Your task to perform on an android device: Open Yahoo.com Image 0: 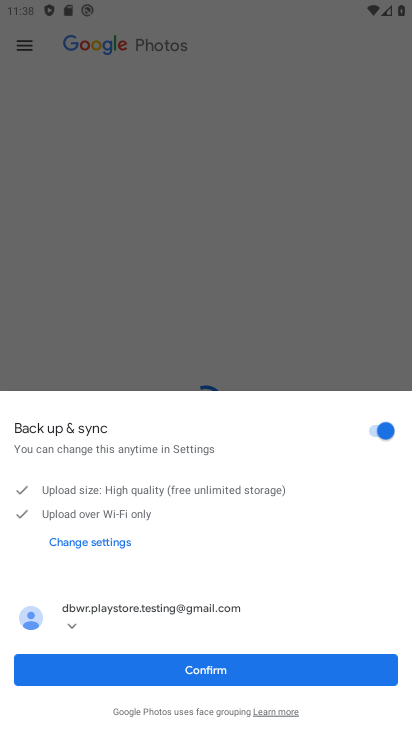
Step 0: press home button
Your task to perform on an android device: Open Yahoo.com Image 1: 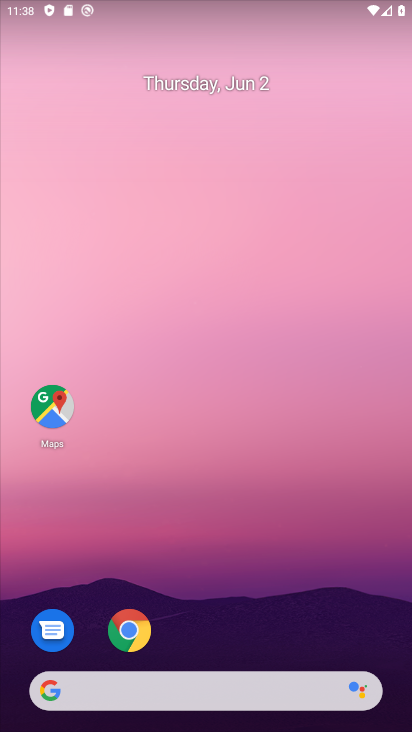
Step 1: click (121, 645)
Your task to perform on an android device: Open Yahoo.com Image 2: 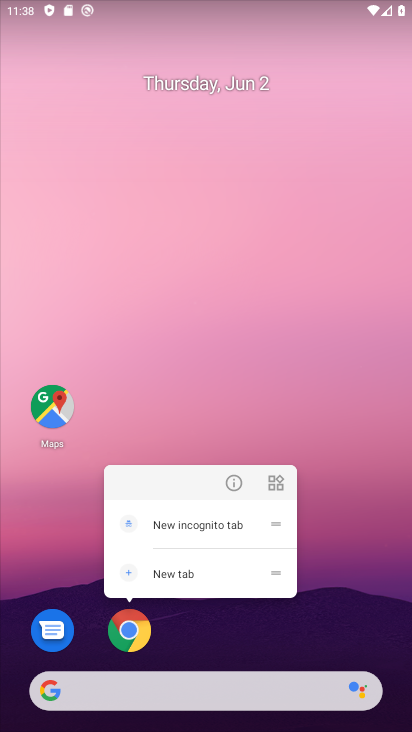
Step 2: click (134, 632)
Your task to perform on an android device: Open Yahoo.com Image 3: 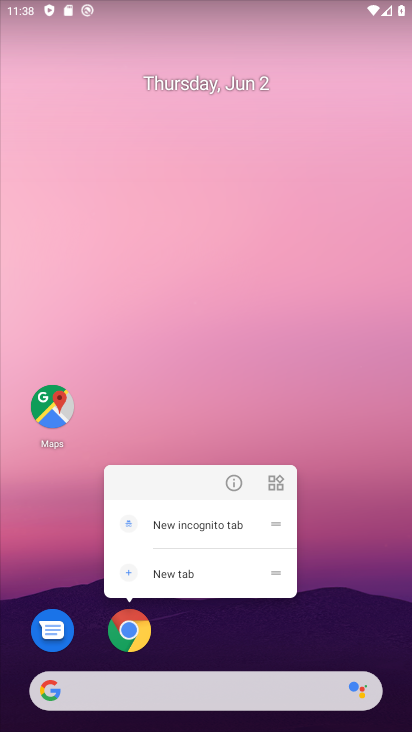
Step 3: click (134, 632)
Your task to perform on an android device: Open Yahoo.com Image 4: 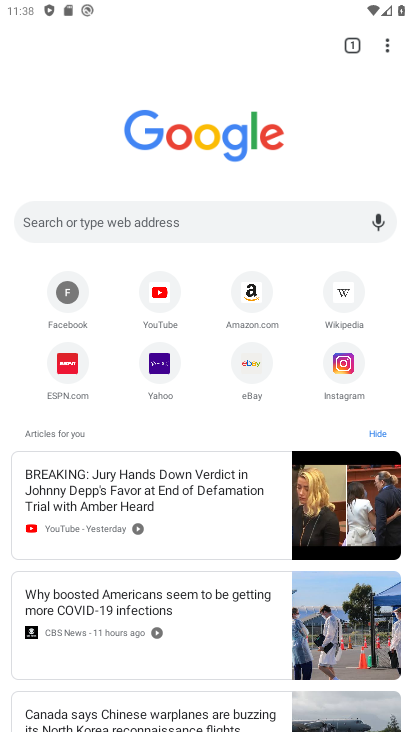
Step 4: click (161, 365)
Your task to perform on an android device: Open Yahoo.com Image 5: 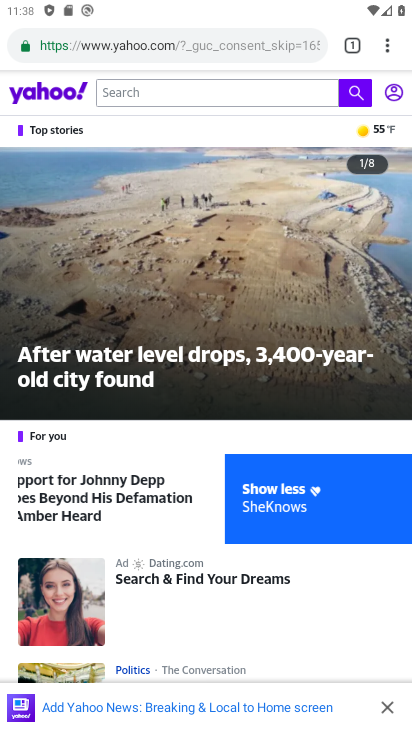
Step 5: task complete